Your task to perform on an android device: Is it going to rain tomorrow? Image 0: 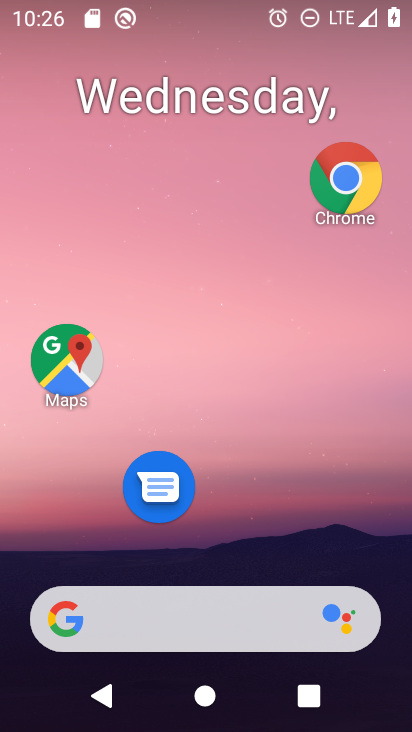
Step 0: drag from (218, 583) to (226, 165)
Your task to perform on an android device: Is it going to rain tomorrow? Image 1: 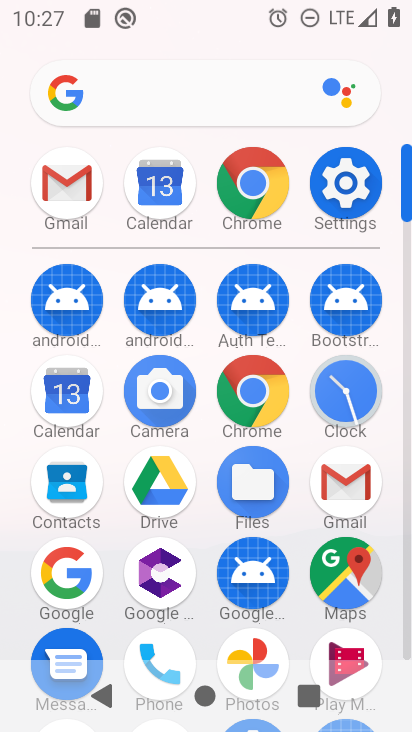
Step 1: click (73, 574)
Your task to perform on an android device: Is it going to rain tomorrow? Image 2: 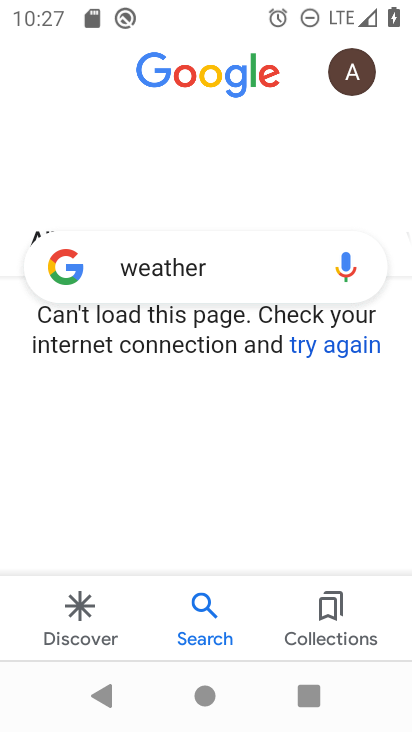
Step 2: click (253, 273)
Your task to perform on an android device: Is it going to rain tomorrow? Image 3: 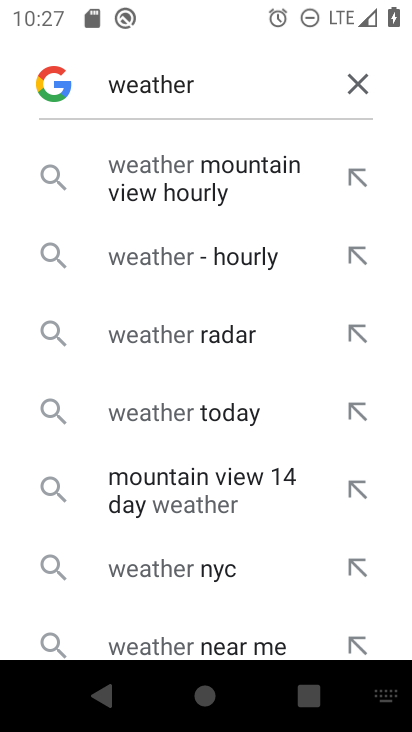
Step 3: click (258, 422)
Your task to perform on an android device: Is it going to rain tomorrow? Image 4: 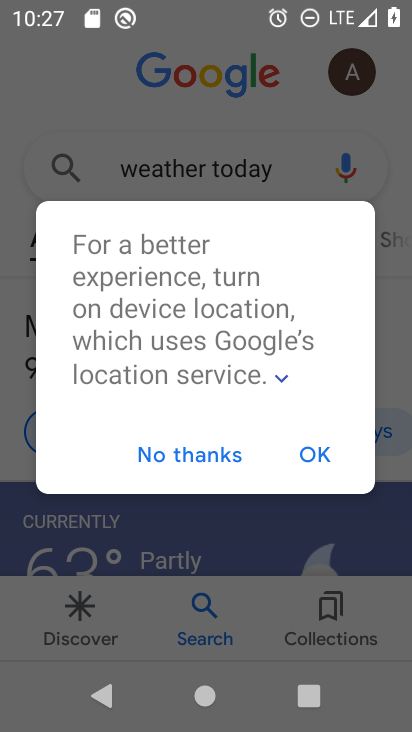
Step 4: click (303, 457)
Your task to perform on an android device: Is it going to rain tomorrow? Image 5: 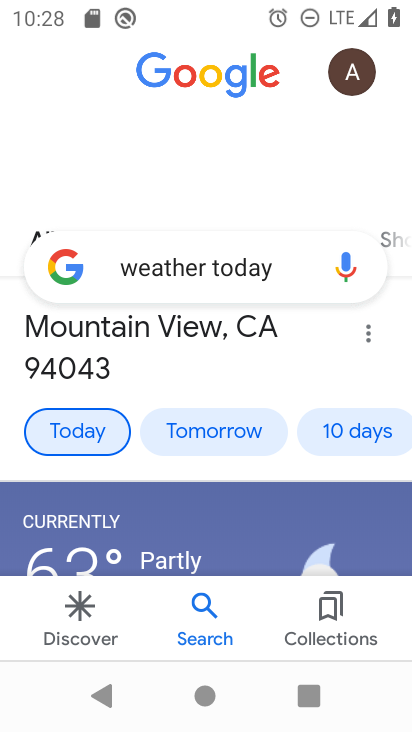
Step 5: click (224, 436)
Your task to perform on an android device: Is it going to rain tomorrow? Image 6: 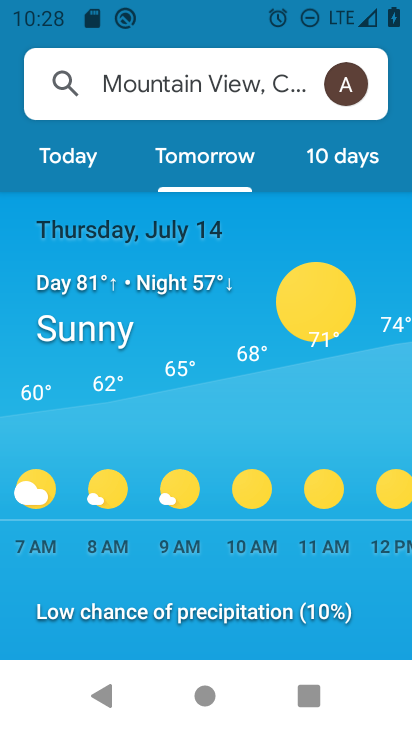
Step 6: task complete